Your task to perform on an android device: turn off sleep mode Image 0: 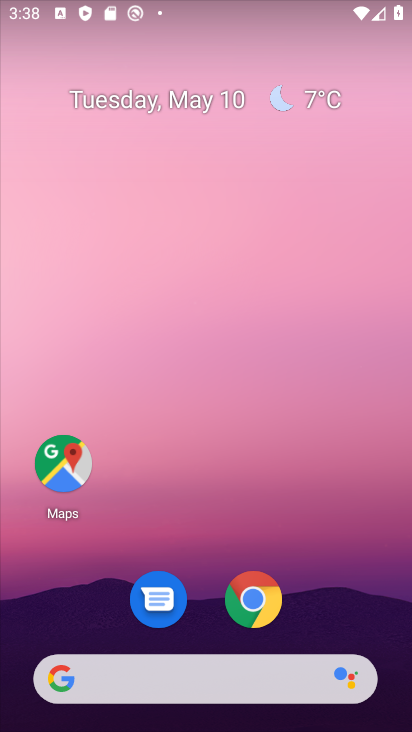
Step 0: drag from (238, 623) to (281, 201)
Your task to perform on an android device: turn off sleep mode Image 1: 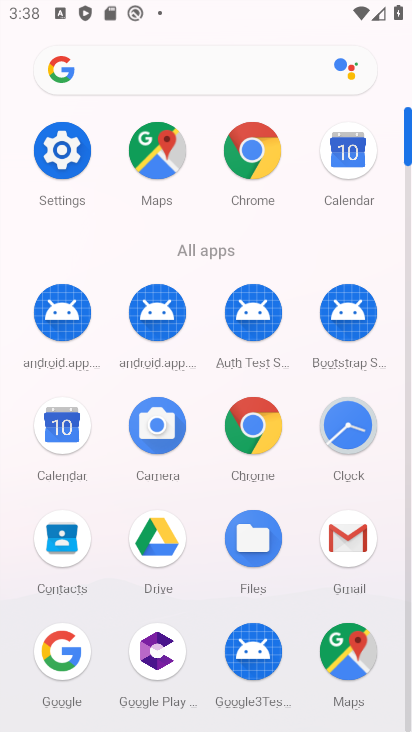
Step 1: click (67, 150)
Your task to perform on an android device: turn off sleep mode Image 2: 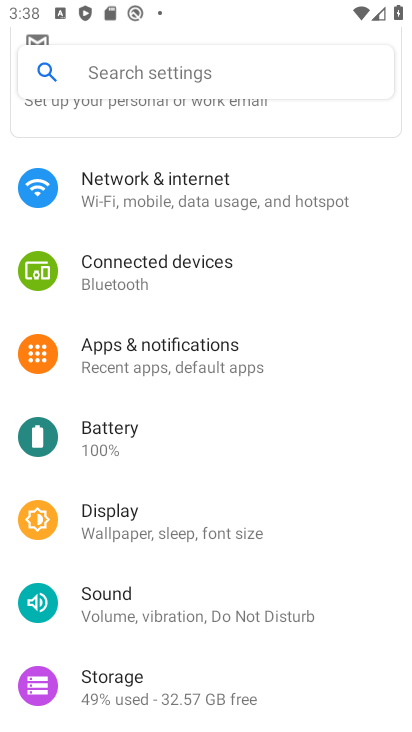
Step 2: drag from (156, 499) to (215, 341)
Your task to perform on an android device: turn off sleep mode Image 3: 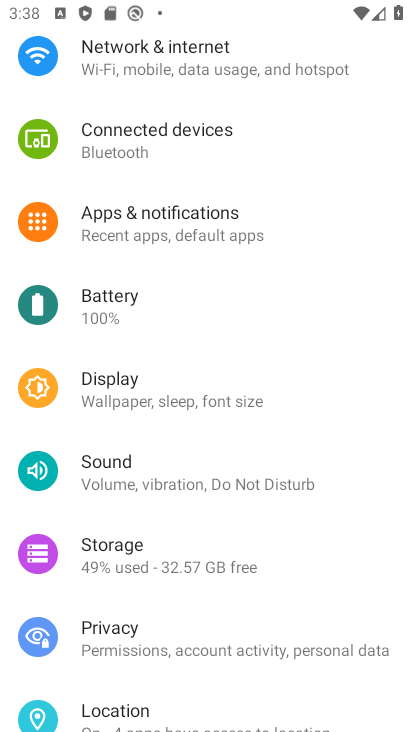
Step 3: drag from (186, 491) to (204, 376)
Your task to perform on an android device: turn off sleep mode Image 4: 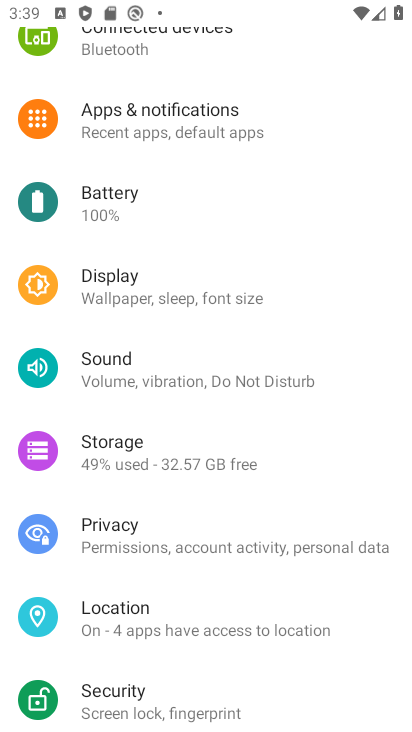
Step 4: click (174, 294)
Your task to perform on an android device: turn off sleep mode Image 5: 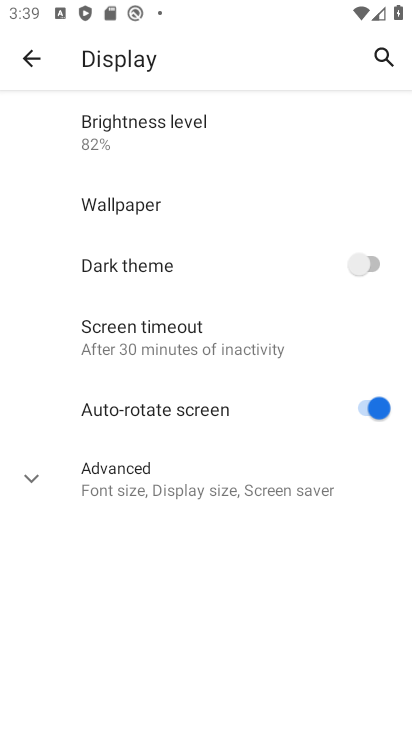
Step 5: task complete